Your task to perform on an android device: What's the weather? Image 0: 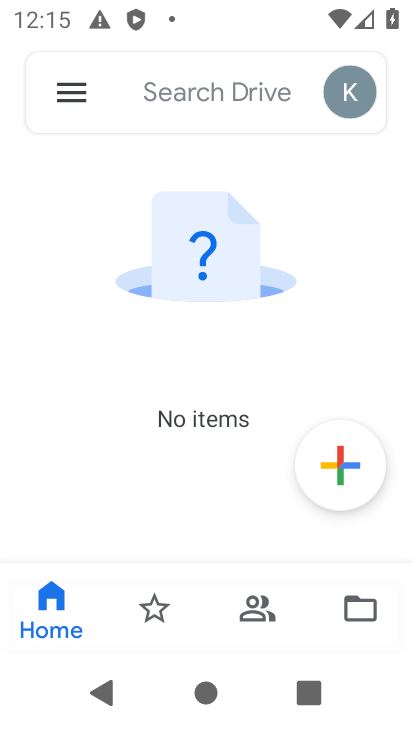
Step 0: press home button
Your task to perform on an android device: What's the weather? Image 1: 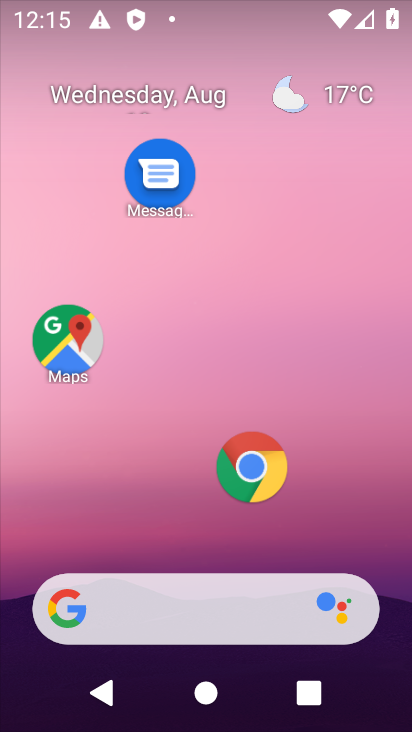
Step 1: click (252, 606)
Your task to perform on an android device: What's the weather? Image 2: 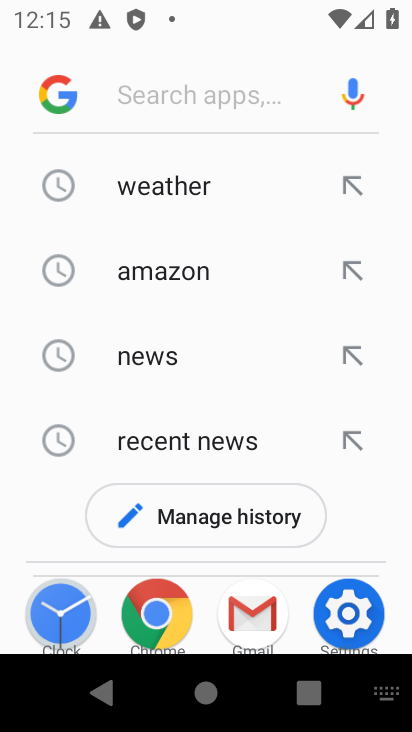
Step 2: click (229, 193)
Your task to perform on an android device: What's the weather? Image 3: 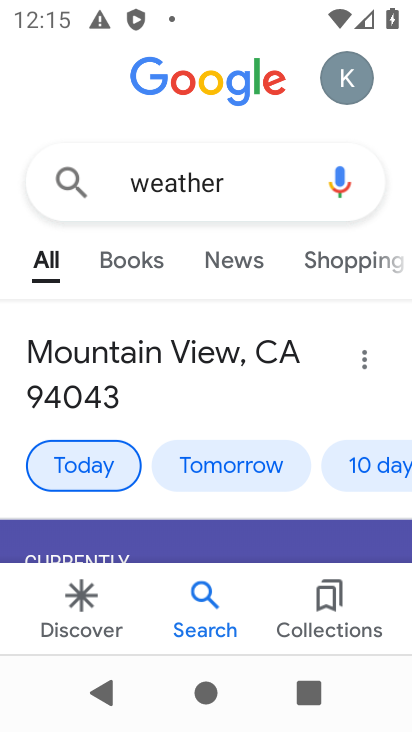
Step 3: task complete